Your task to perform on an android device: star an email in the gmail app Image 0: 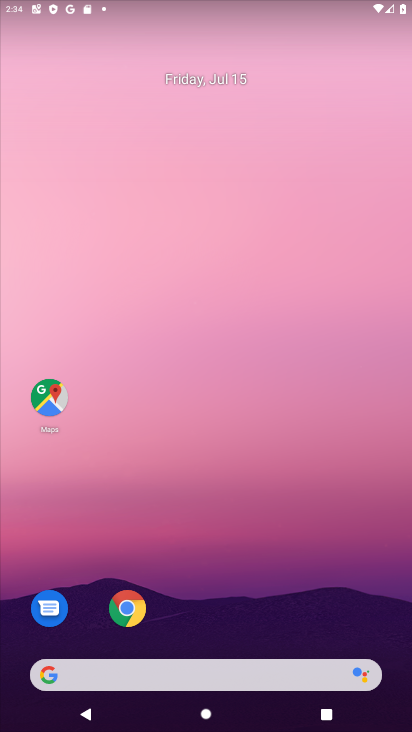
Step 0: drag from (276, 611) to (292, 97)
Your task to perform on an android device: star an email in the gmail app Image 1: 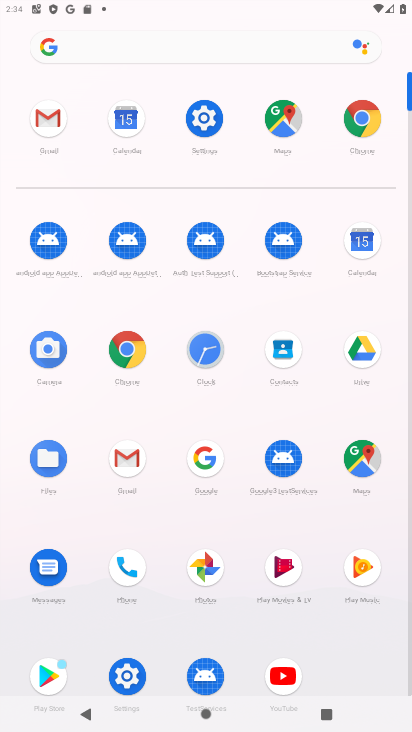
Step 1: click (56, 112)
Your task to perform on an android device: star an email in the gmail app Image 2: 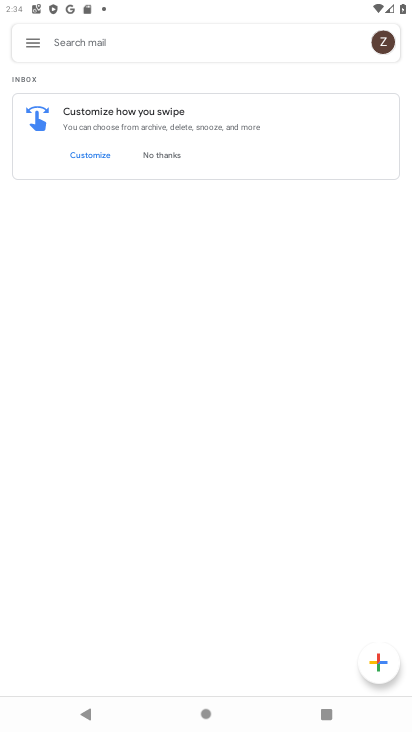
Step 2: task complete